Your task to perform on an android device: allow cookies in the chrome app Image 0: 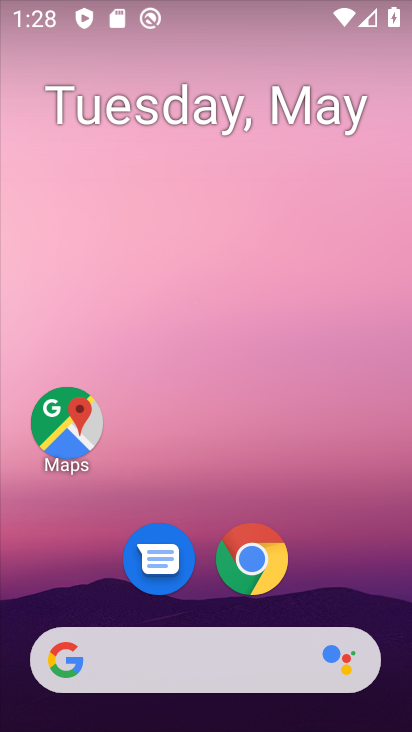
Step 0: drag from (396, 645) to (246, 62)
Your task to perform on an android device: allow cookies in the chrome app Image 1: 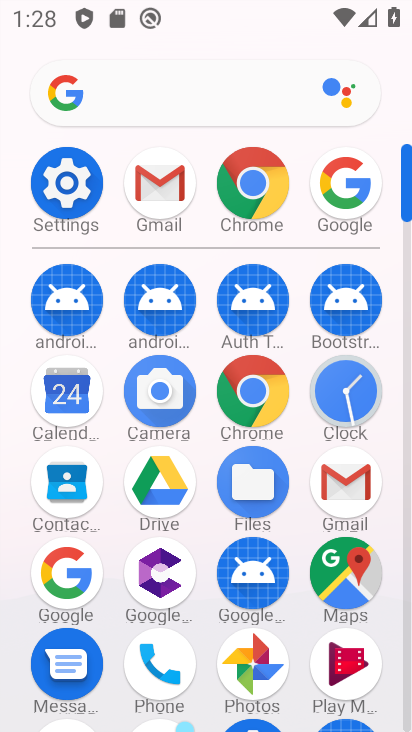
Step 1: click (273, 372)
Your task to perform on an android device: allow cookies in the chrome app Image 2: 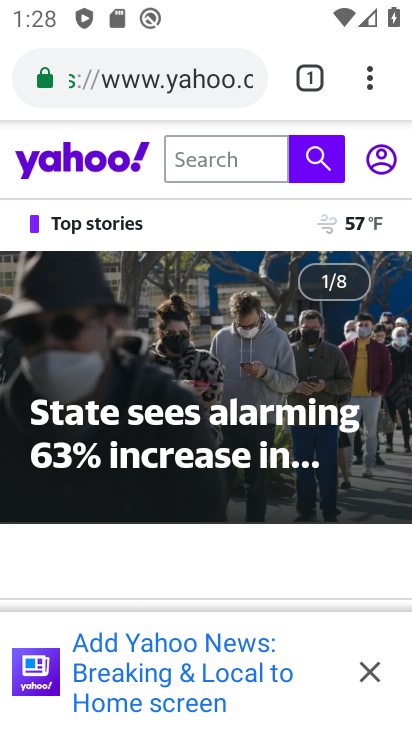
Step 2: press back button
Your task to perform on an android device: allow cookies in the chrome app Image 3: 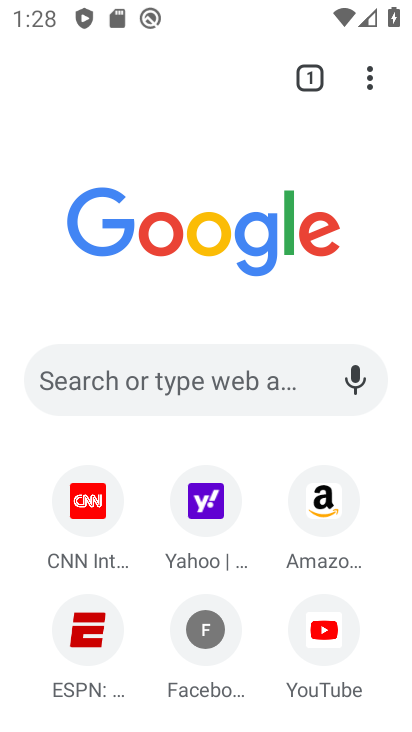
Step 3: click (370, 79)
Your task to perform on an android device: allow cookies in the chrome app Image 4: 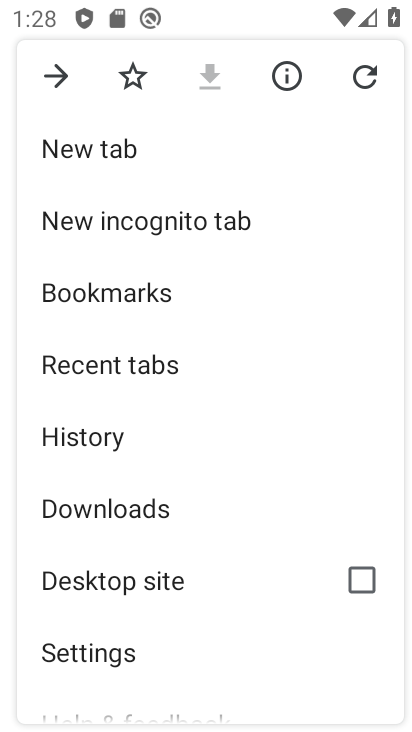
Step 4: click (143, 449)
Your task to perform on an android device: allow cookies in the chrome app Image 5: 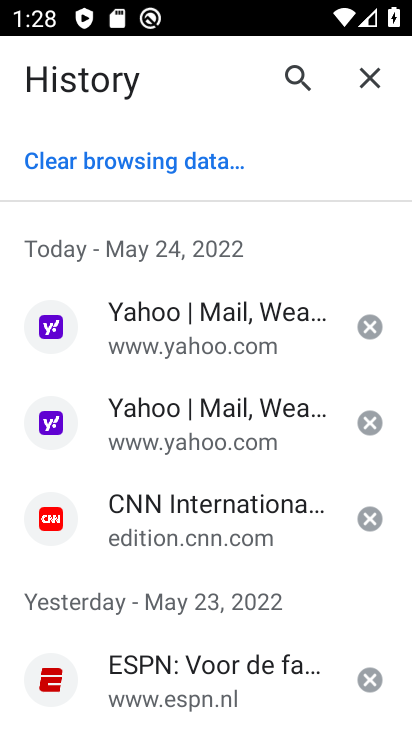
Step 5: click (164, 193)
Your task to perform on an android device: allow cookies in the chrome app Image 6: 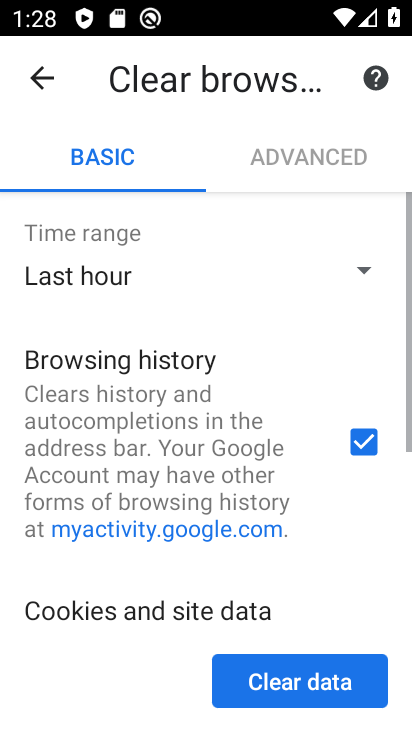
Step 6: task complete